Your task to perform on an android device: see sites visited before in the chrome app Image 0: 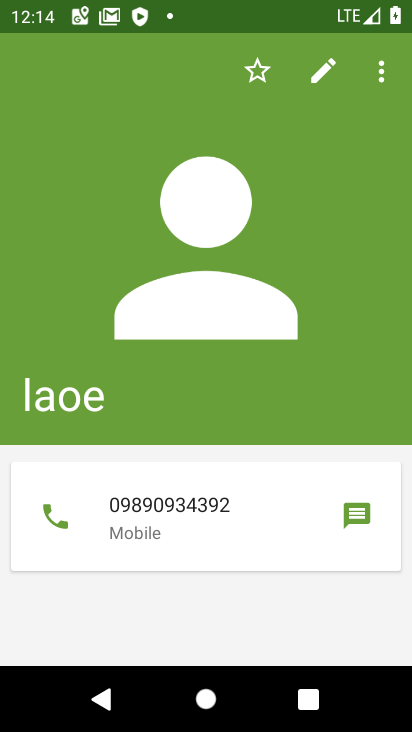
Step 0: press home button
Your task to perform on an android device: see sites visited before in the chrome app Image 1: 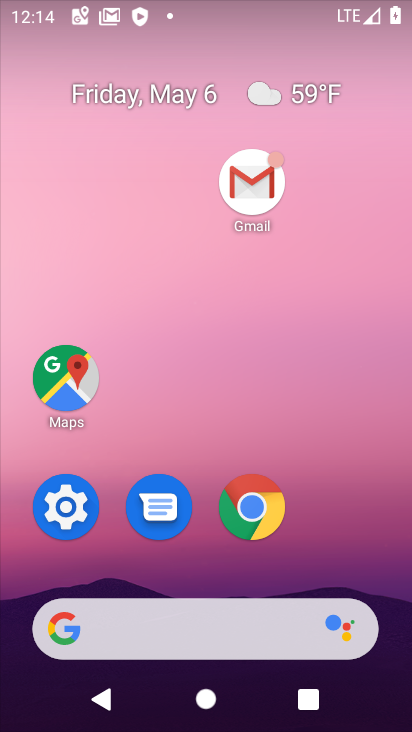
Step 1: click (255, 511)
Your task to perform on an android device: see sites visited before in the chrome app Image 2: 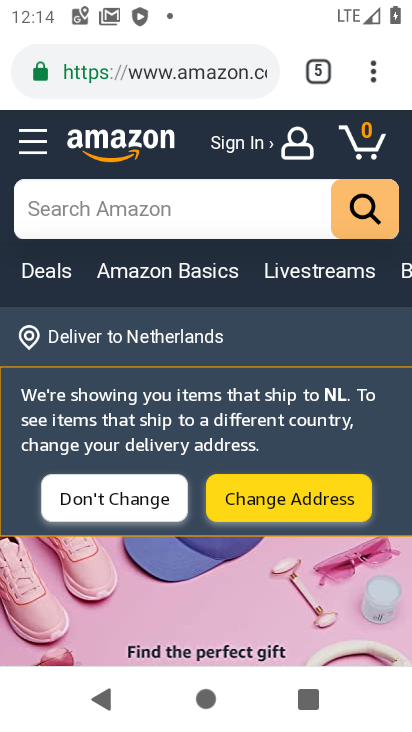
Step 2: click (372, 69)
Your task to perform on an android device: see sites visited before in the chrome app Image 3: 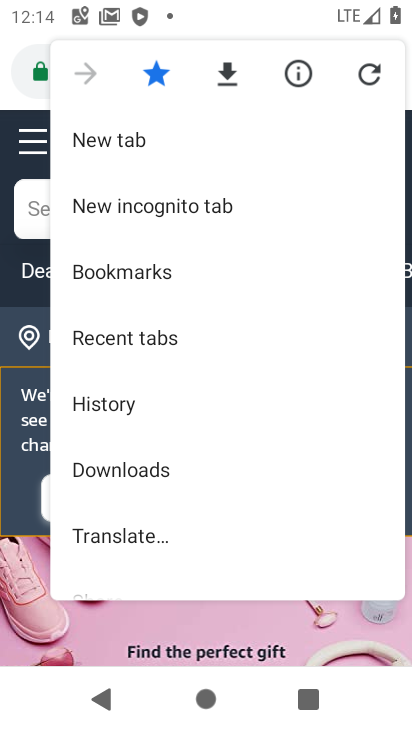
Step 3: click (114, 400)
Your task to perform on an android device: see sites visited before in the chrome app Image 4: 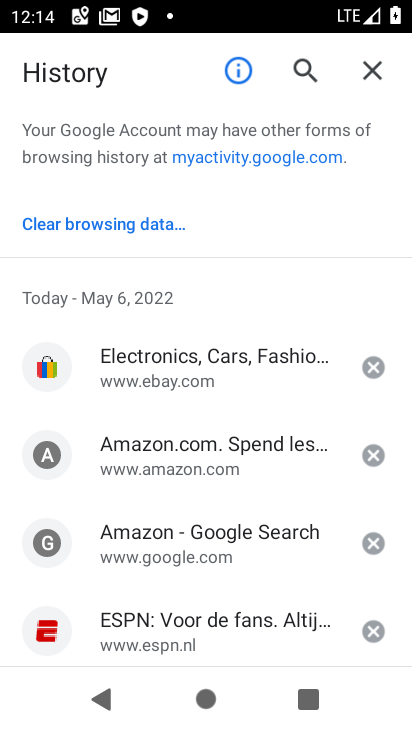
Step 4: task complete